Your task to perform on an android device: clear all cookies in the chrome app Image 0: 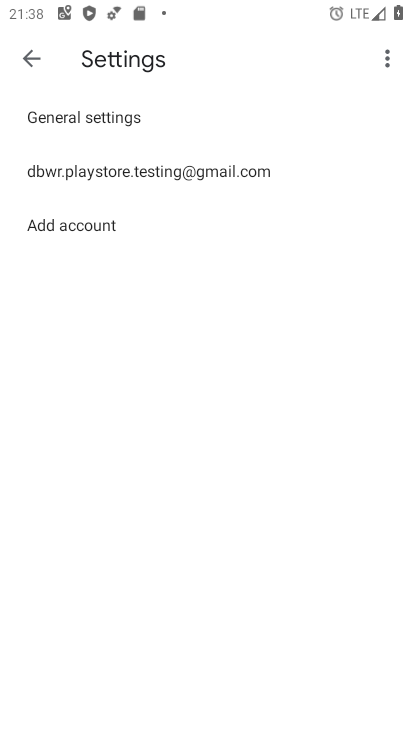
Step 0: press home button
Your task to perform on an android device: clear all cookies in the chrome app Image 1: 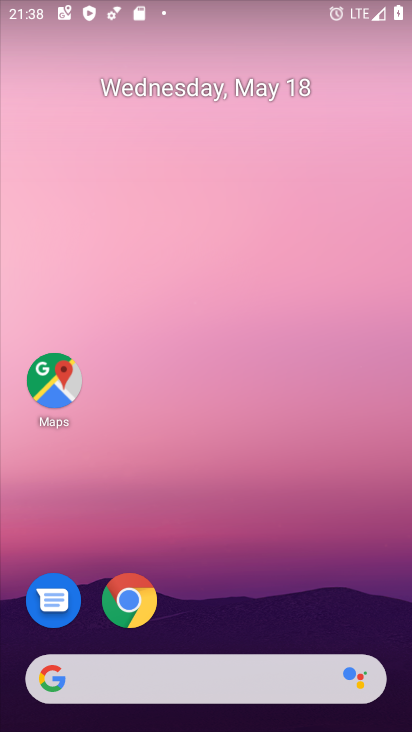
Step 1: click (118, 599)
Your task to perform on an android device: clear all cookies in the chrome app Image 2: 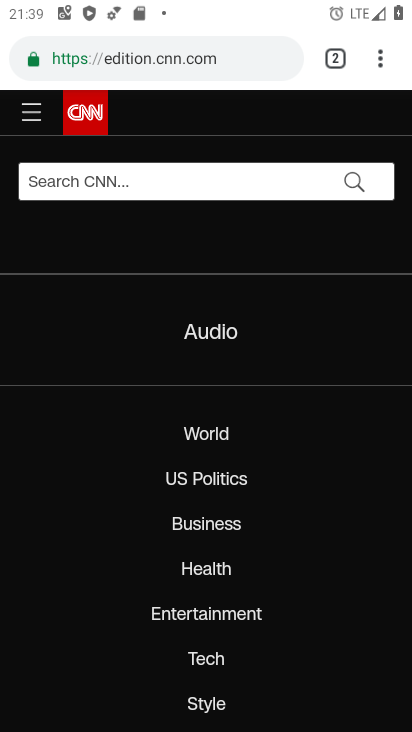
Step 2: click (373, 58)
Your task to perform on an android device: clear all cookies in the chrome app Image 3: 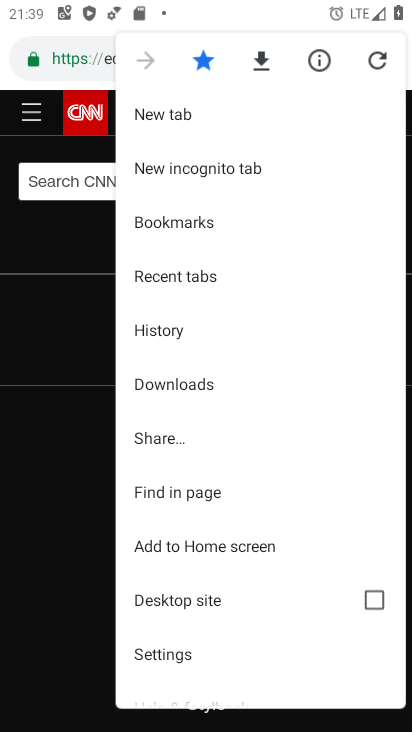
Step 3: click (185, 331)
Your task to perform on an android device: clear all cookies in the chrome app Image 4: 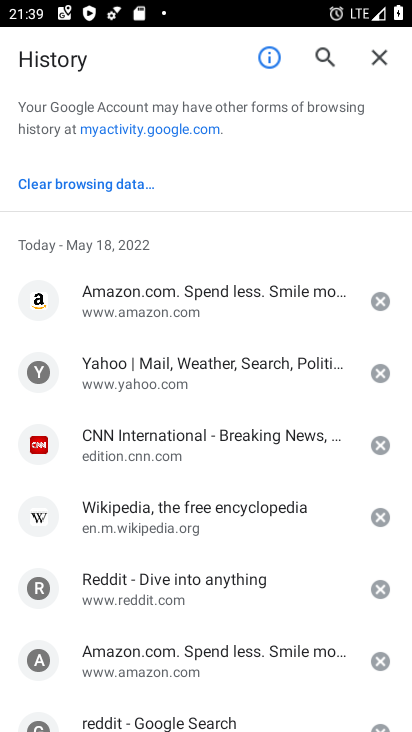
Step 4: click (97, 183)
Your task to perform on an android device: clear all cookies in the chrome app Image 5: 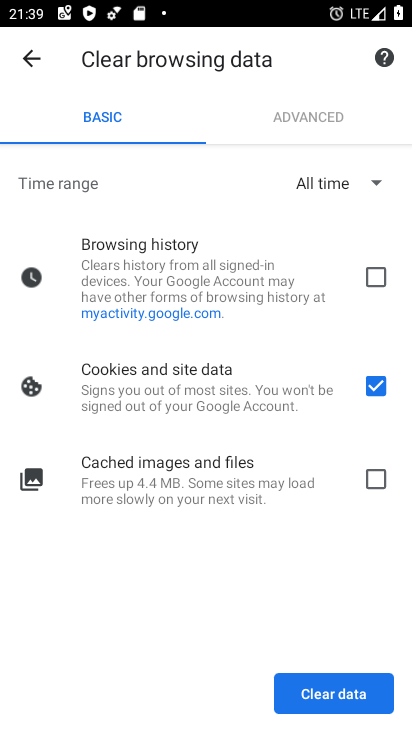
Step 5: click (297, 687)
Your task to perform on an android device: clear all cookies in the chrome app Image 6: 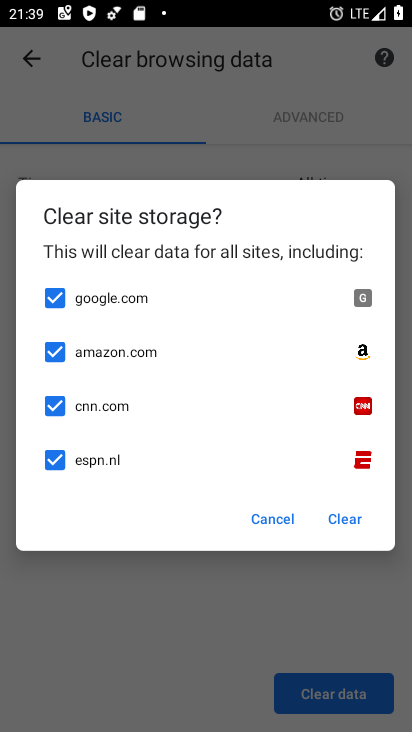
Step 6: click (348, 500)
Your task to perform on an android device: clear all cookies in the chrome app Image 7: 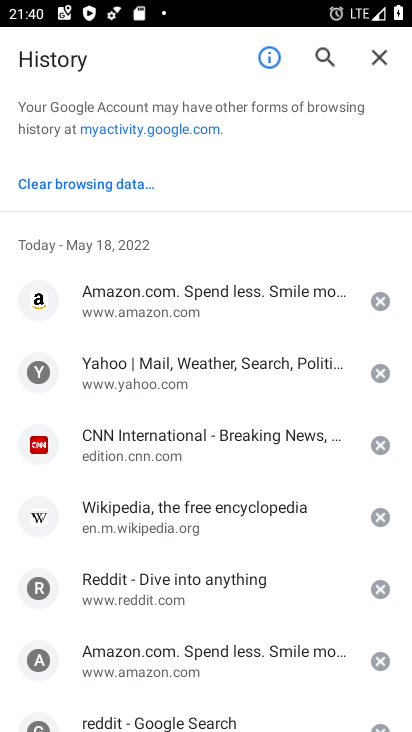
Step 7: task complete